Your task to perform on an android device: open sync settings in chrome Image 0: 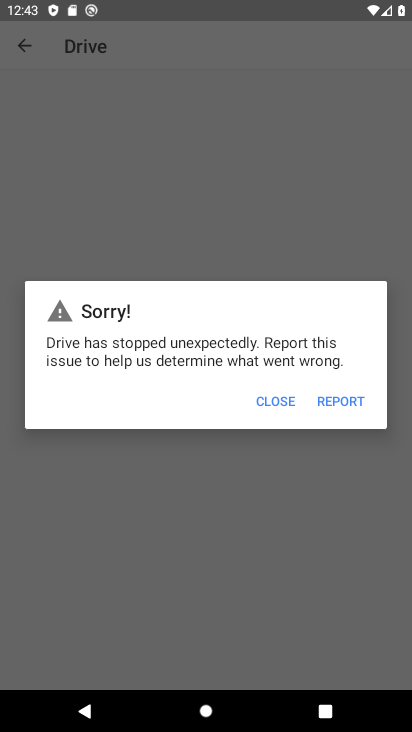
Step 0: task impossible